Your task to perform on an android device: delete browsing data in the chrome app Image 0: 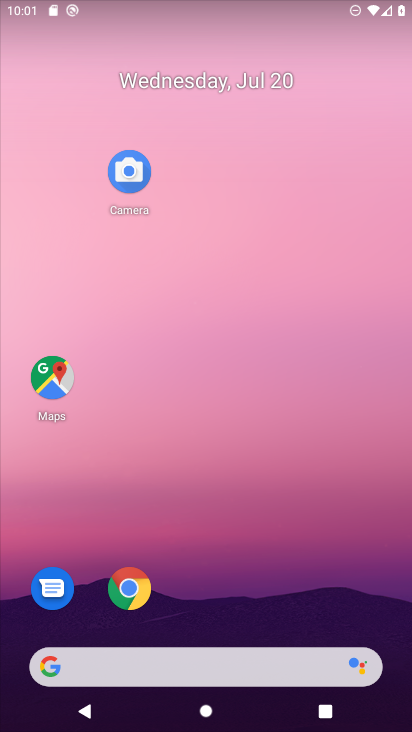
Step 0: click (124, 596)
Your task to perform on an android device: delete browsing data in the chrome app Image 1: 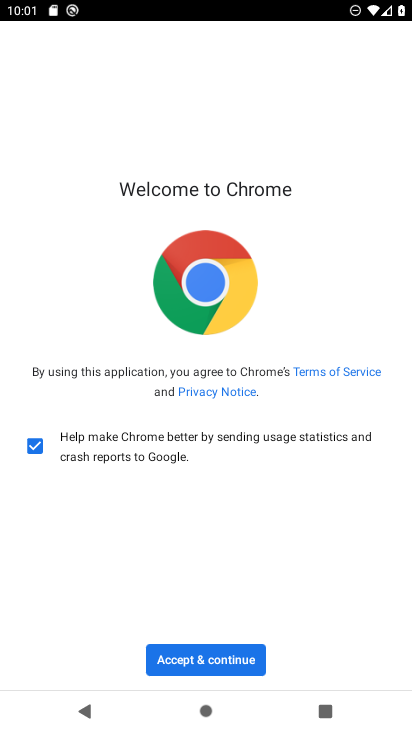
Step 1: click (202, 651)
Your task to perform on an android device: delete browsing data in the chrome app Image 2: 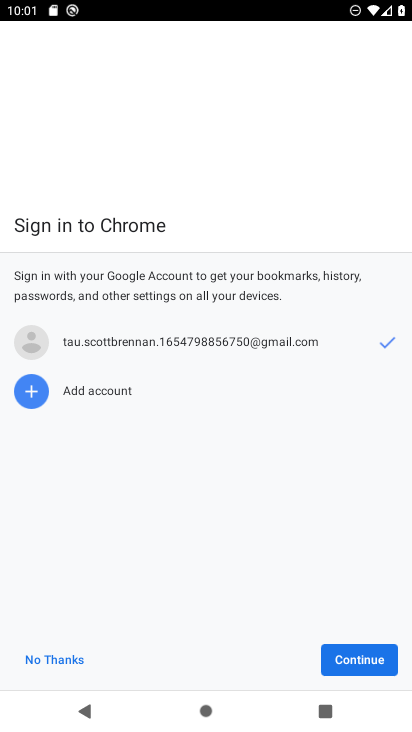
Step 2: click (351, 653)
Your task to perform on an android device: delete browsing data in the chrome app Image 3: 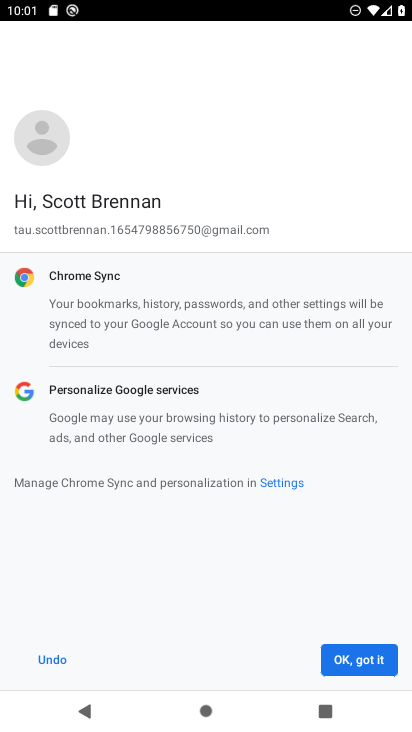
Step 3: click (351, 653)
Your task to perform on an android device: delete browsing data in the chrome app Image 4: 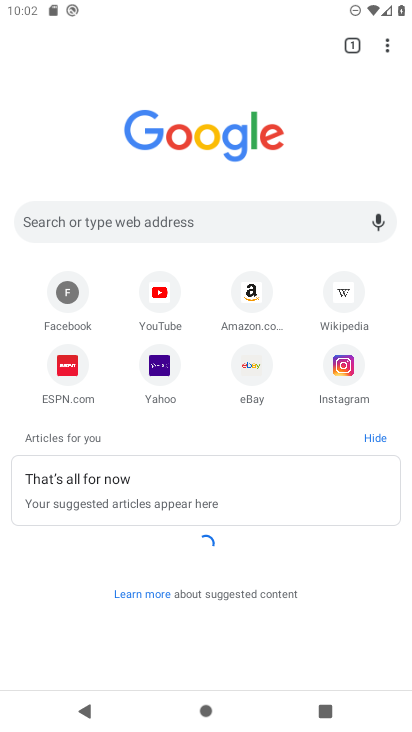
Step 4: drag from (387, 41) to (233, 384)
Your task to perform on an android device: delete browsing data in the chrome app Image 5: 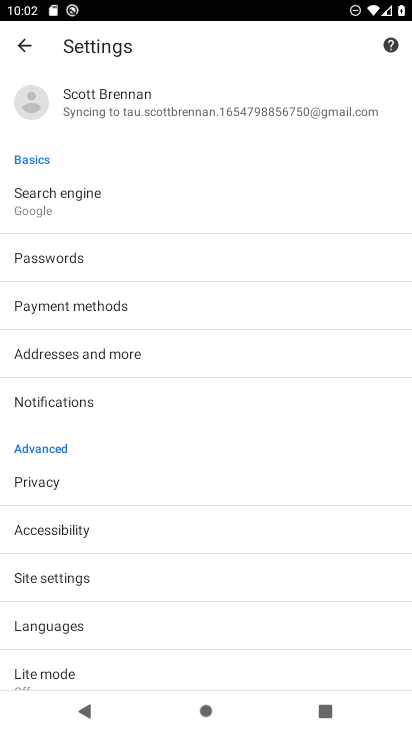
Step 5: click (85, 481)
Your task to perform on an android device: delete browsing data in the chrome app Image 6: 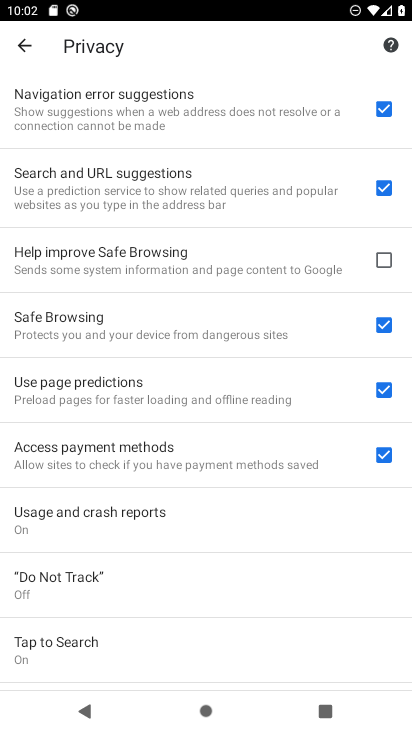
Step 6: drag from (311, 639) to (206, 192)
Your task to perform on an android device: delete browsing data in the chrome app Image 7: 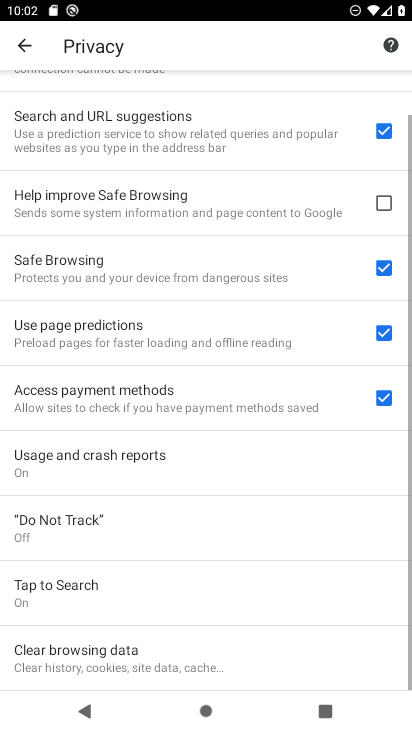
Step 7: click (70, 654)
Your task to perform on an android device: delete browsing data in the chrome app Image 8: 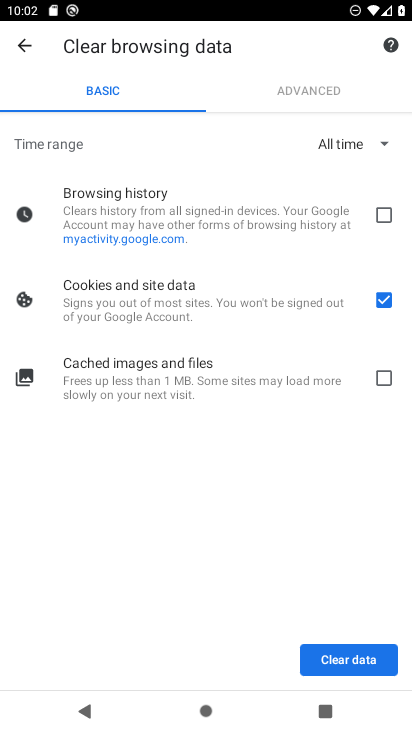
Step 8: click (378, 216)
Your task to perform on an android device: delete browsing data in the chrome app Image 9: 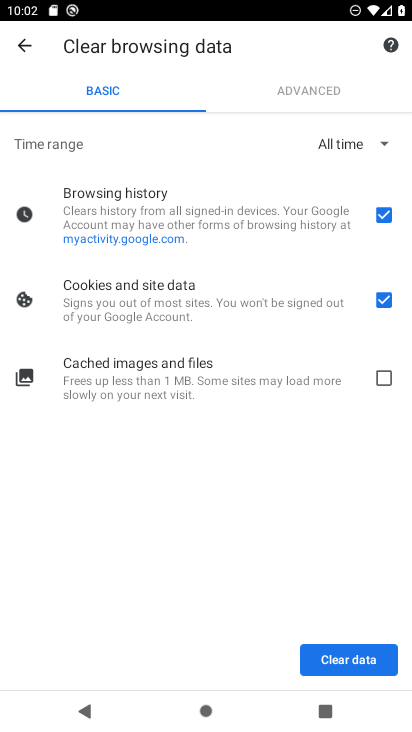
Step 9: click (385, 299)
Your task to perform on an android device: delete browsing data in the chrome app Image 10: 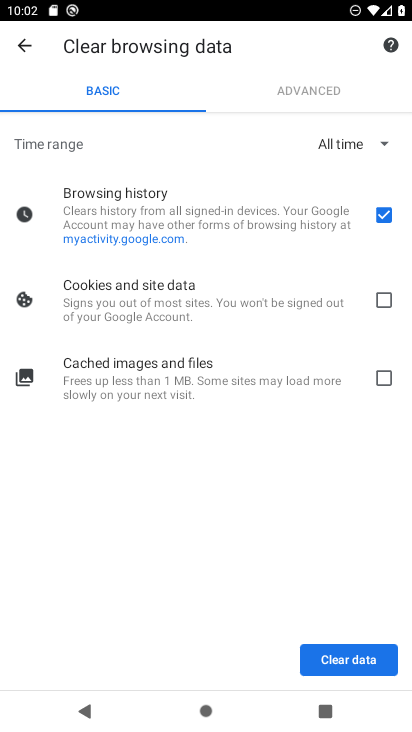
Step 10: click (350, 657)
Your task to perform on an android device: delete browsing data in the chrome app Image 11: 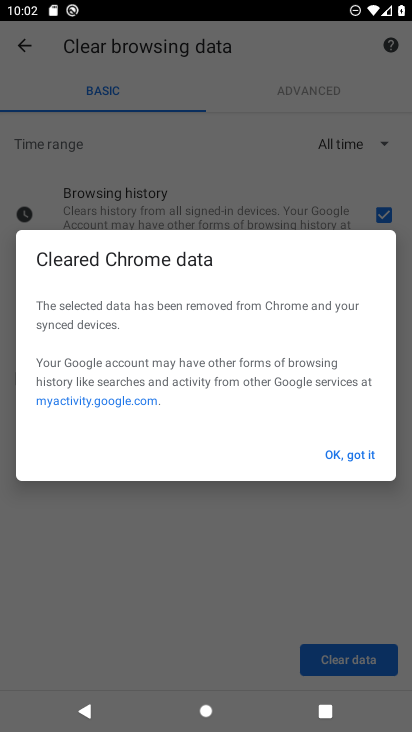
Step 11: click (338, 452)
Your task to perform on an android device: delete browsing data in the chrome app Image 12: 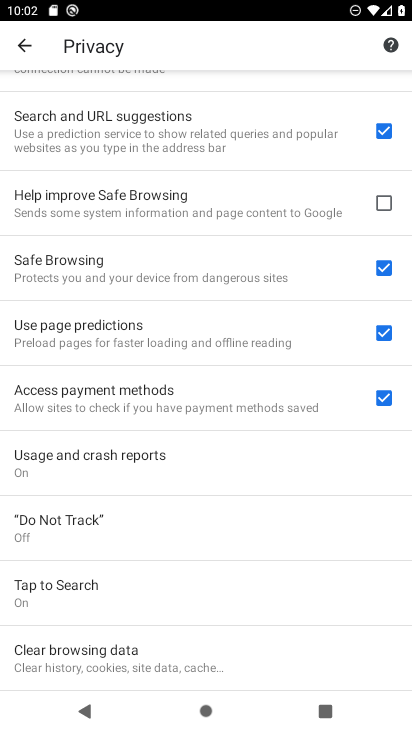
Step 12: task complete